Your task to perform on an android device: turn on data saver in the chrome app Image 0: 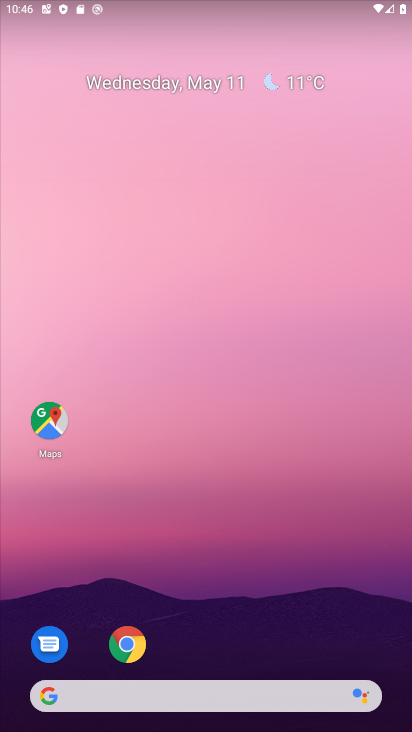
Step 0: click (129, 650)
Your task to perform on an android device: turn on data saver in the chrome app Image 1: 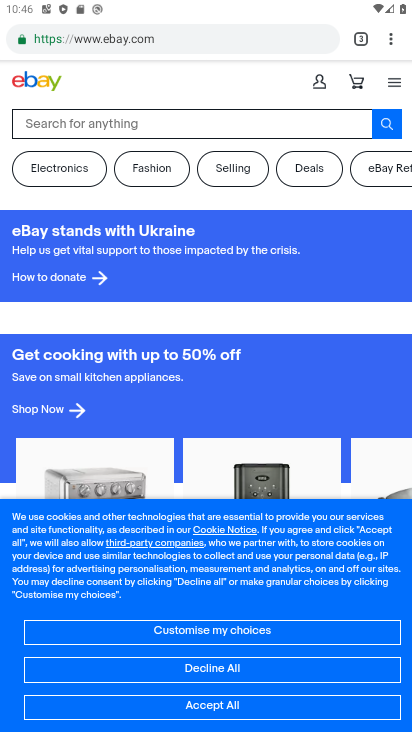
Step 1: click (392, 37)
Your task to perform on an android device: turn on data saver in the chrome app Image 2: 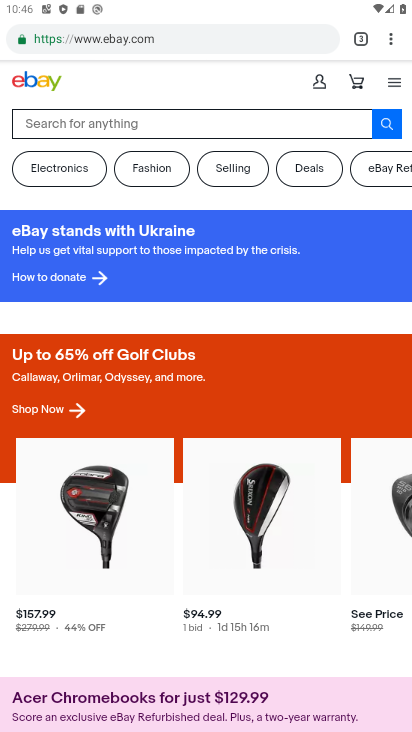
Step 2: click (392, 38)
Your task to perform on an android device: turn on data saver in the chrome app Image 3: 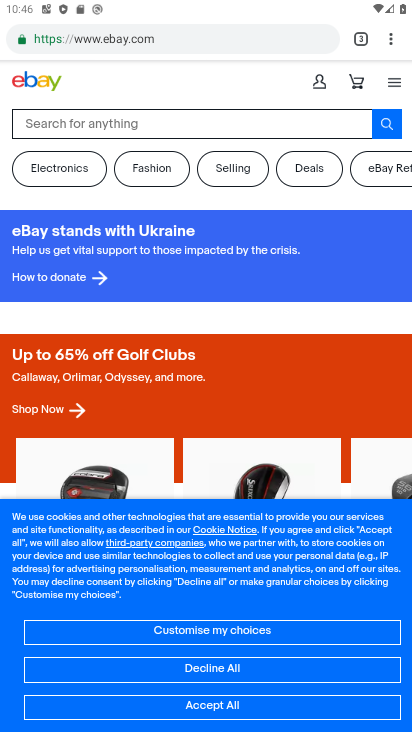
Step 3: drag from (392, 38) to (285, 471)
Your task to perform on an android device: turn on data saver in the chrome app Image 4: 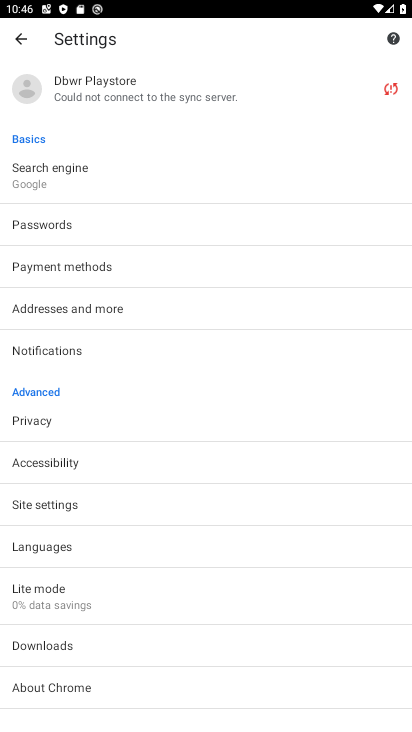
Step 4: click (44, 606)
Your task to perform on an android device: turn on data saver in the chrome app Image 5: 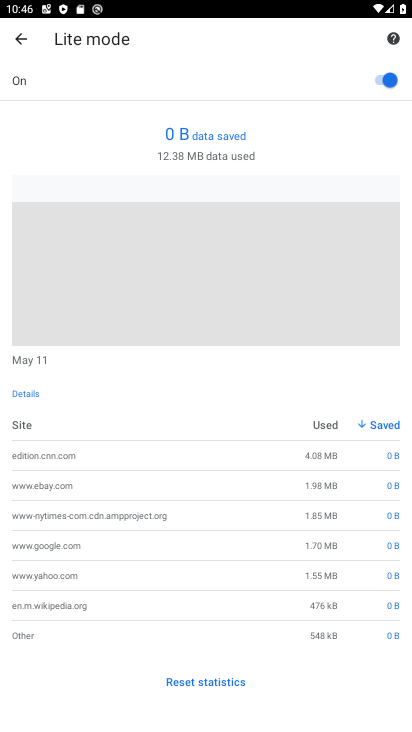
Step 5: task complete